Your task to perform on an android device: toggle translation in the chrome app Image 0: 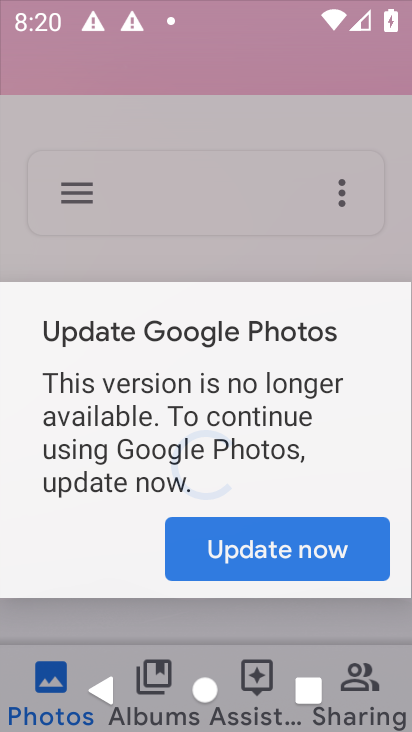
Step 0: press home button
Your task to perform on an android device: toggle translation in the chrome app Image 1: 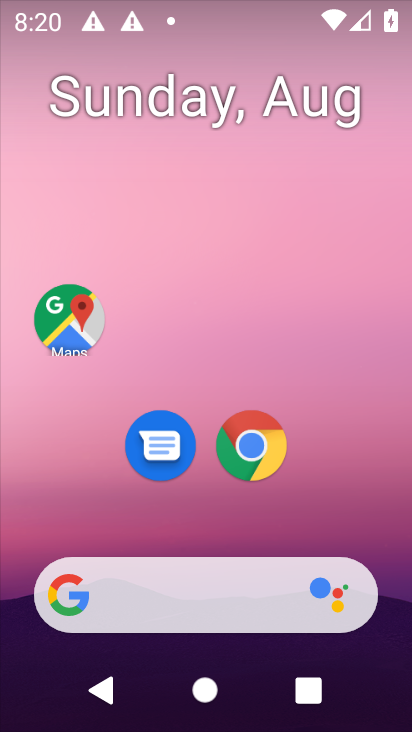
Step 1: press home button
Your task to perform on an android device: toggle translation in the chrome app Image 2: 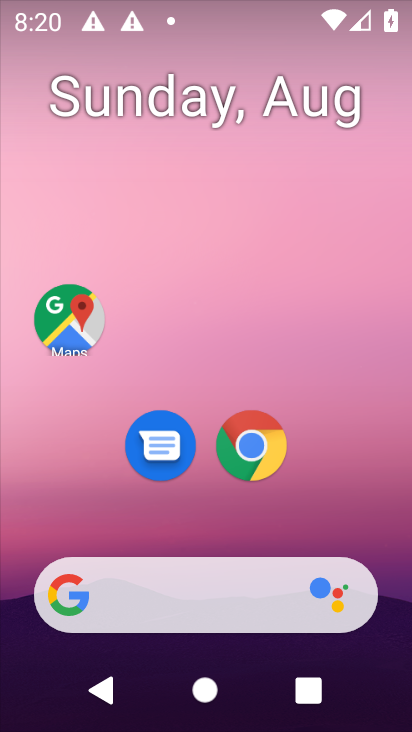
Step 2: click (247, 438)
Your task to perform on an android device: toggle translation in the chrome app Image 3: 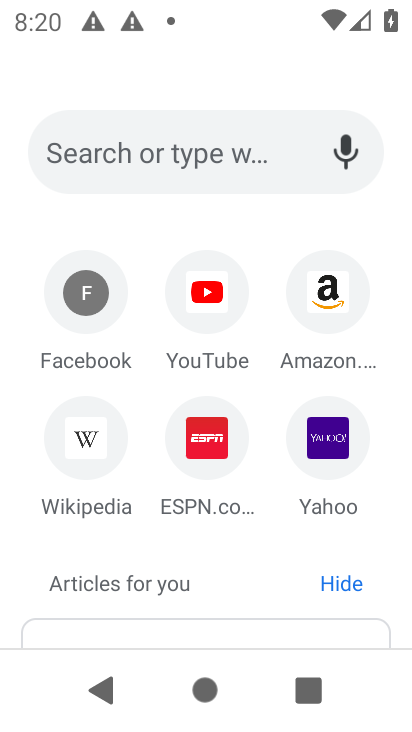
Step 3: drag from (266, 227) to (287, 633)
Your task to perform on an android device: toggle translation in the chrome app Image 4: 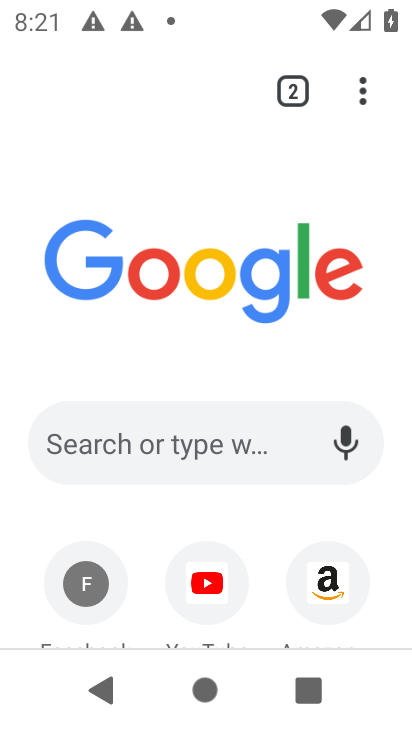
Step 4: click (364, 89)
Your task to perform on an android device: toggle translation in the chrome app Image 5: 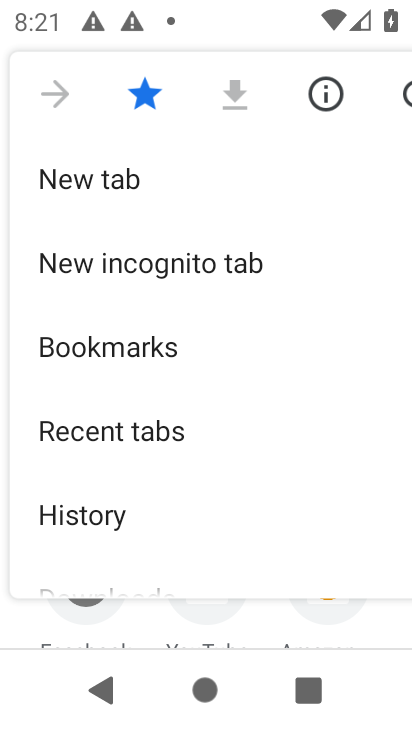
Step 5: drag from (184, 523) to (153, 467)
Your task to perform on an android device: toggle translation in the chrome app Image 6: 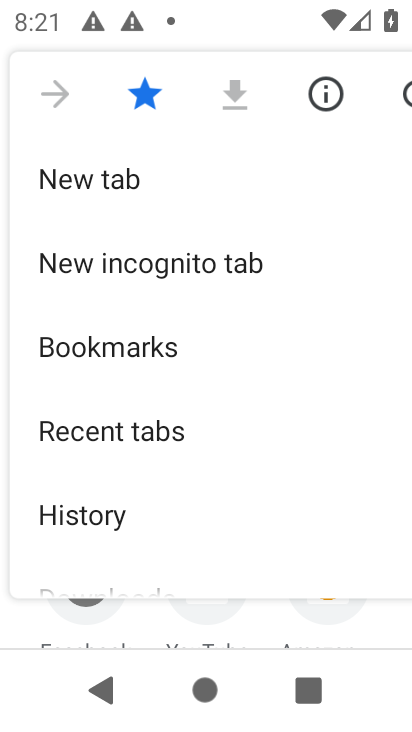
Step 6: drag from (199, 497) to (228, 117)
Your task to perform on an android device: toggle translation in the chrome app Image 7: 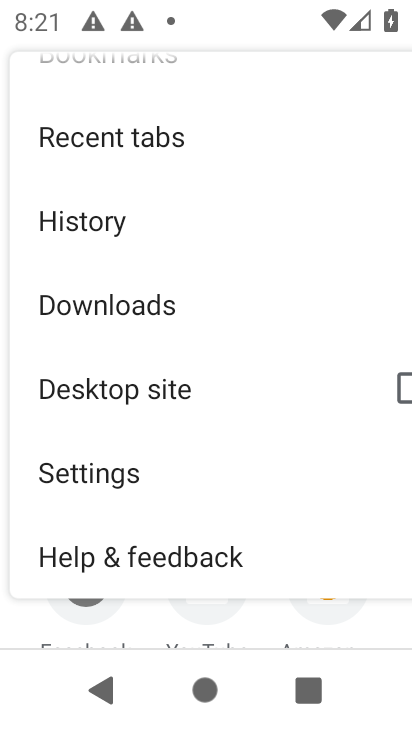
Step 7: click (152, 469)
Your task to perform on an android device: toggle translation in the chrome app Image 8: 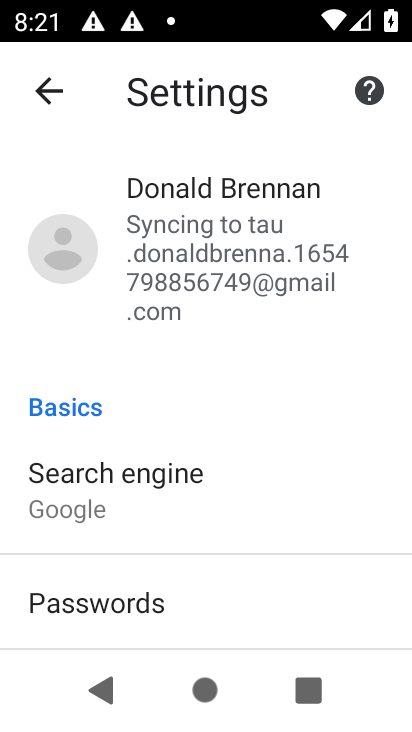
Step 8: drag from (224, 605) to (256, 67)
Your task to perform on an android device: toggle translation in the chrome app Image 9: 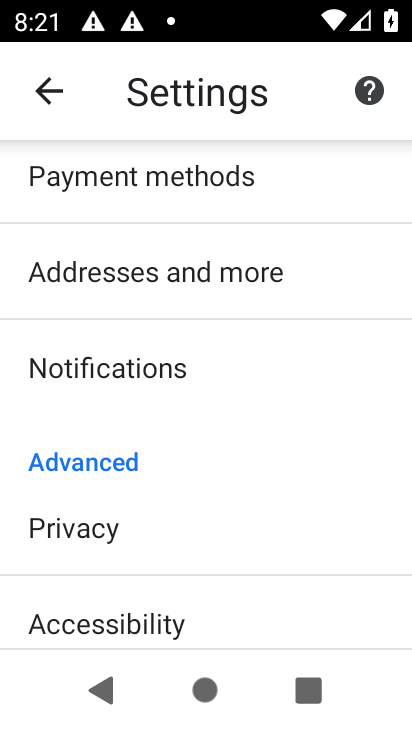
Step 9: drag from (241, 614) to (265, 161)
Your task to perform on an android device: toggle translation in the chrome app Image 10: 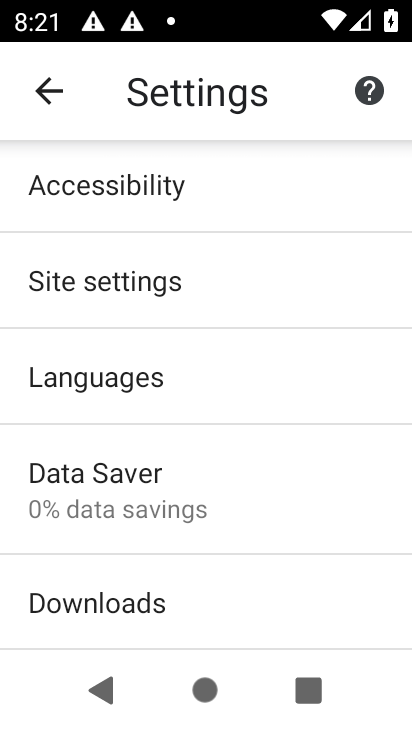
Step 10: click (186, 376)
Your task to perform on an android device: toggle translation in the chrome app Image 11: 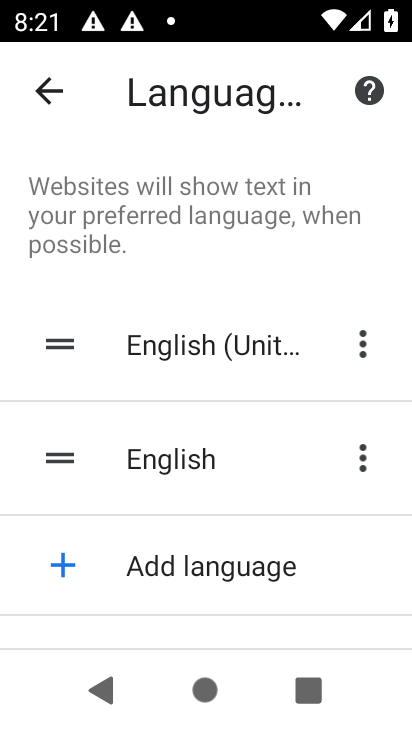
Step 11: drag from (231, 557) to (243, 101)
Your task to perform on an android device: toggle translation in the chrome app Image 12: 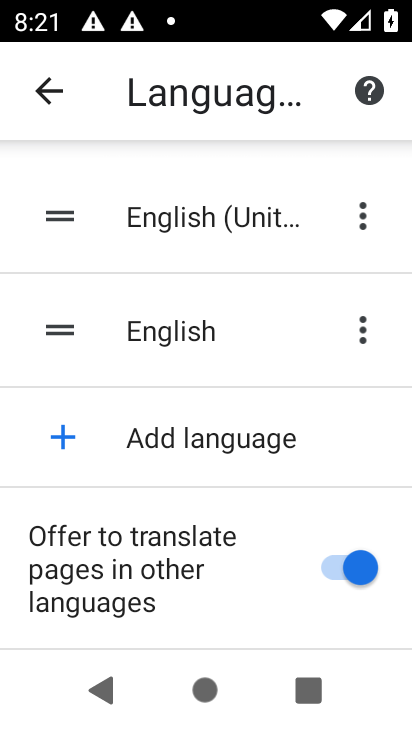
Step 12: click (335, 560)
Your task to perform on an android device: toggle translation in the chrome app Image 13: 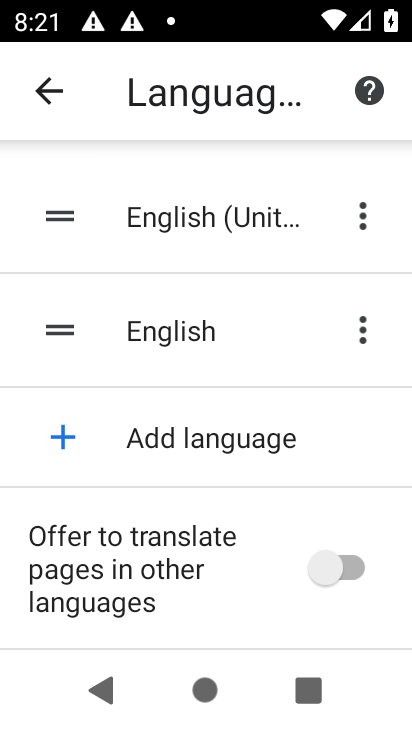
Step 13: task complete